Your task to perform on an android device: Open notification settings Image 0: 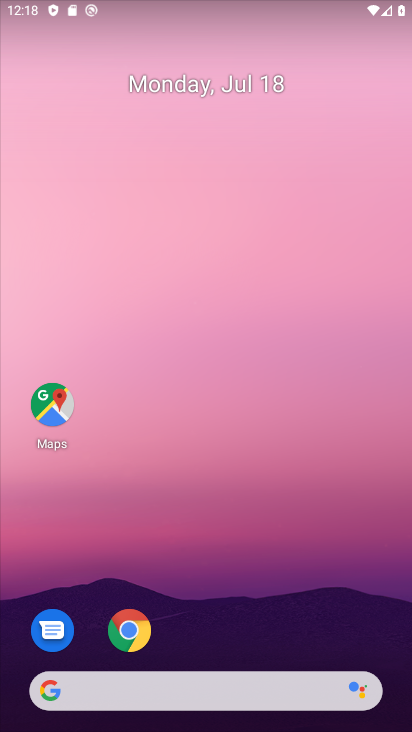
Step 0: drag from (167, 658) to (175, 36)
Your task to perform on an android device: Open notification settings Image 1: 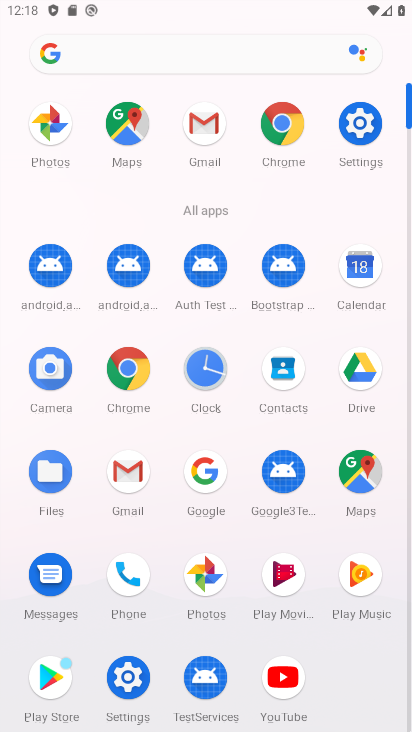
Step 1: click (128, 691)
Your task to perform on an android device: Open notification settings Image 2: 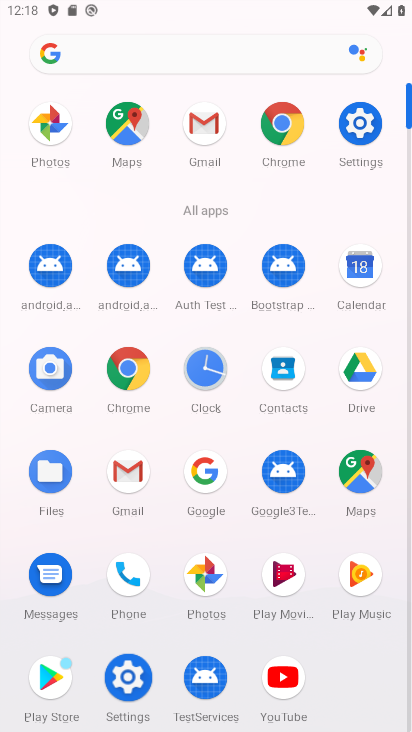
Step 2: click (121, 686)
Your task to perform on an android device: Open notification settings Image 3: 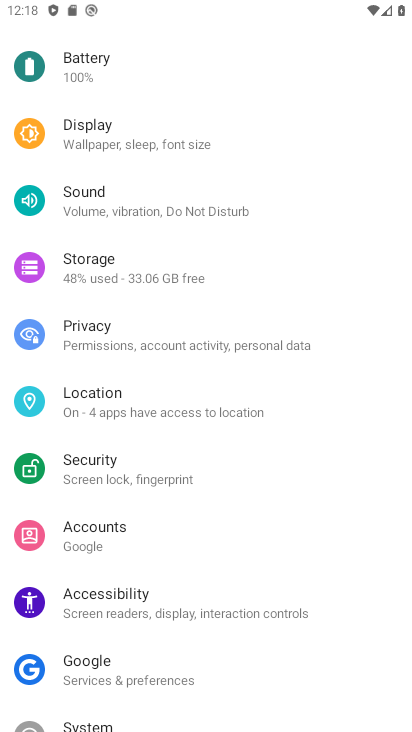
Step 3: click (128, 675)
Your task to perform on an android device: Open notification settings Image 4: 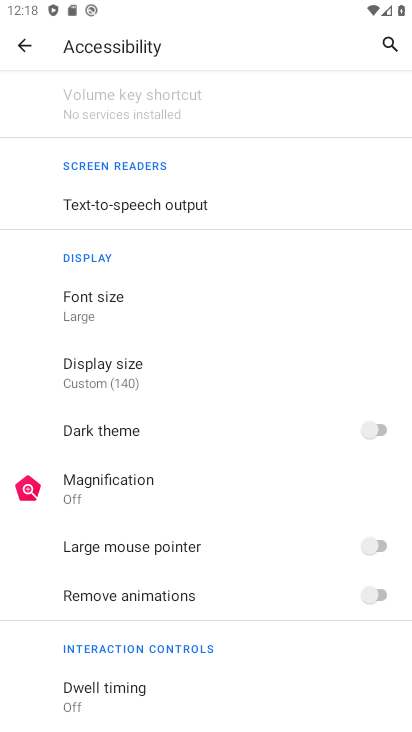
Step 4: click (24, 42)
Your task to perform on an android device: Open notification settings Image 5: 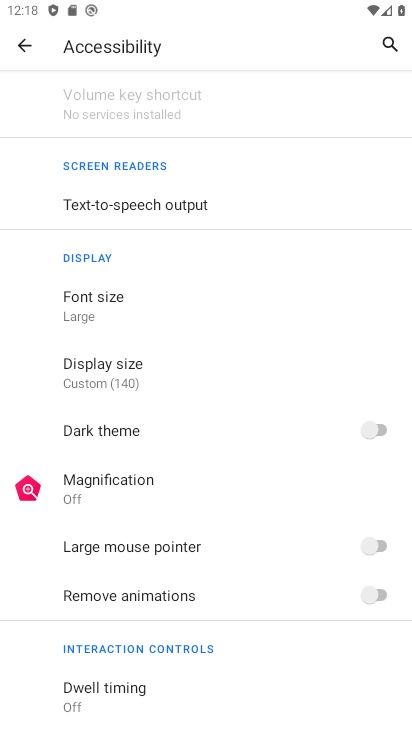
Step 5: click (26, 41)
Your task to perform on an android device: Open notification settings Image 6: 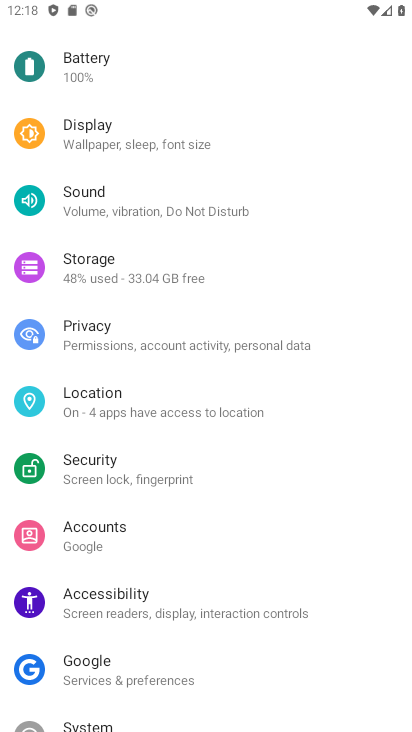
Step 6: drag from (179, 616) to (138, 251)
Your task to perform on an android device: Open notification settings Image 7: 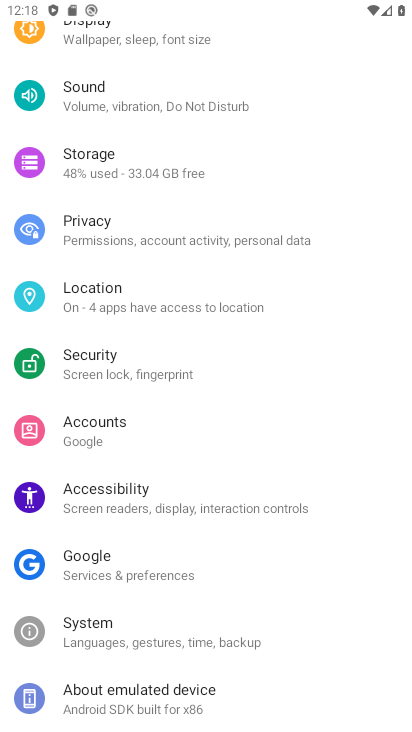
Step 7: drag from (158, 481) to (115, 208)
Your task to perform on an android device: Open notification settings Image 8: 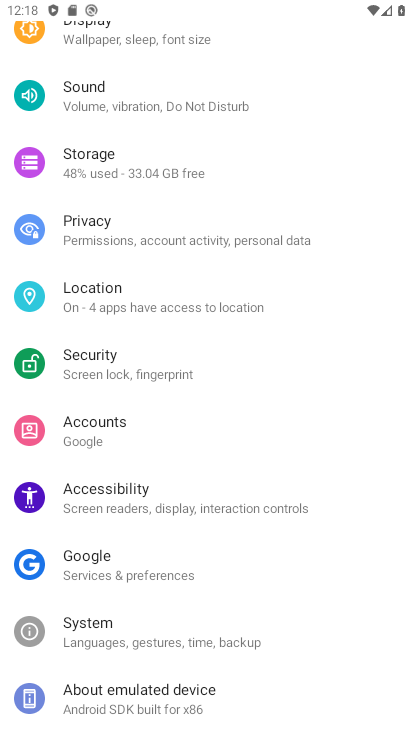
Step 8: drag from (131, 212) to (160, 562)
Your task to perform on an android device: Open notification settings Image 9: 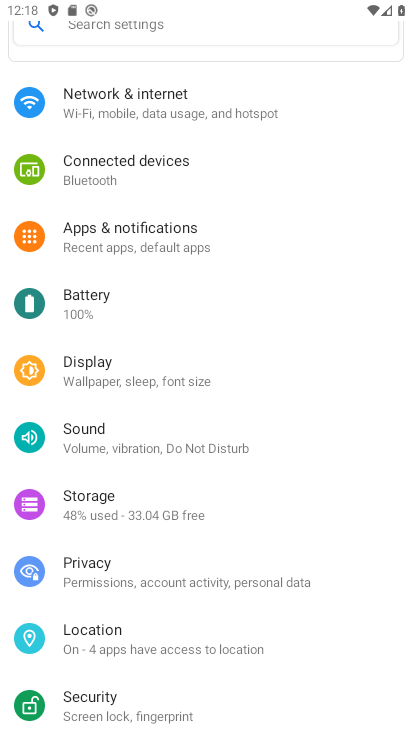
Step 9: click (154, 237)
Your task to perform on an android device: Open notification settings Image 10: 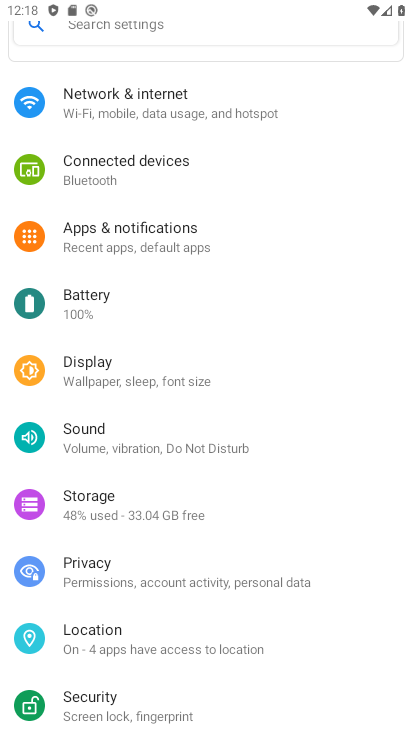
Step 10: click (161, 255)
Your task to perform on an android device: Open notification settings Image 11: 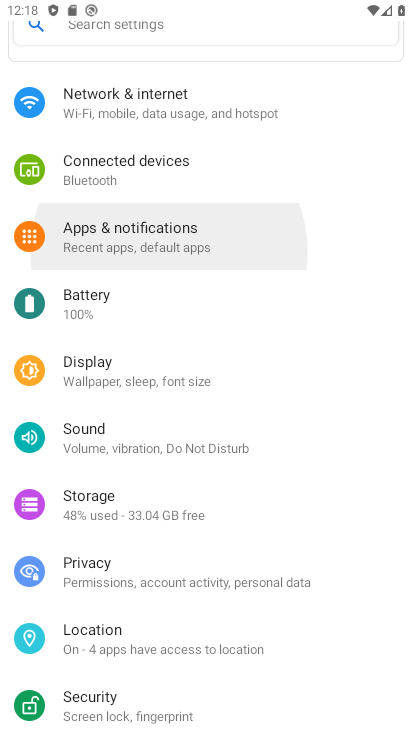
Step 11: click (130, 237)
Your task to perform on an android device: Open notification settings Image 12: 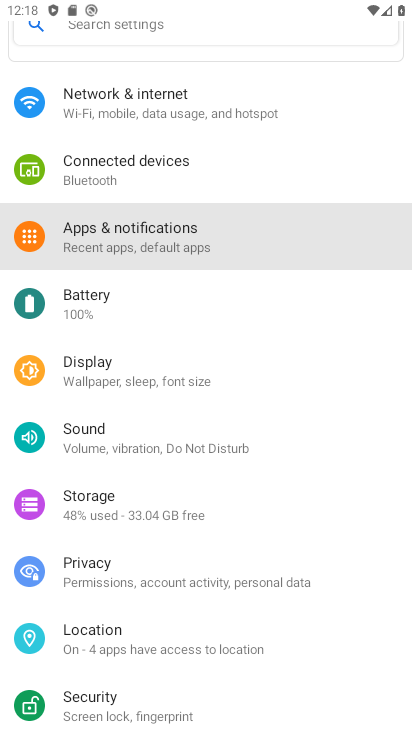
Step 12: click (128, 246)
Your task to perform on an android device: Open notification settings Image 13: 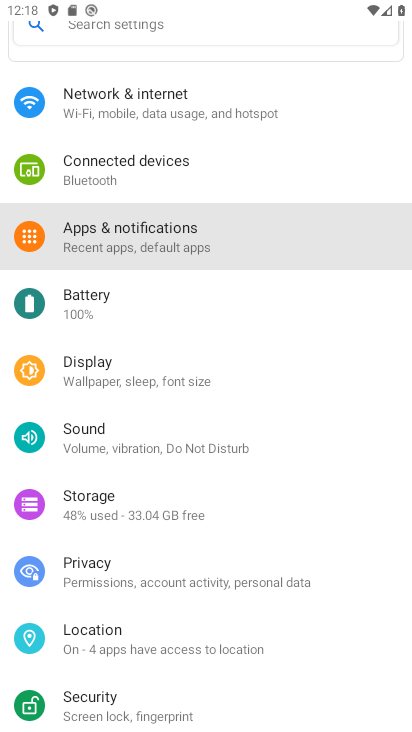
Step 13: click (126, 245)
Your task to perform on an android device: Open notification settings Image 14: 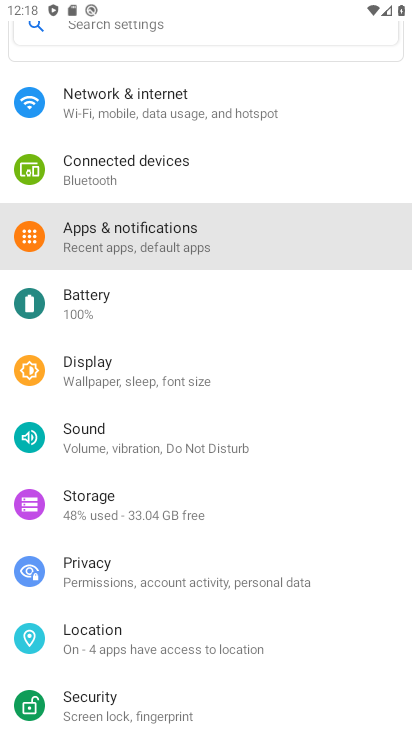
Step 14: click (117, 228)
Your task to perform on an android device: Open notification settings Image 15: 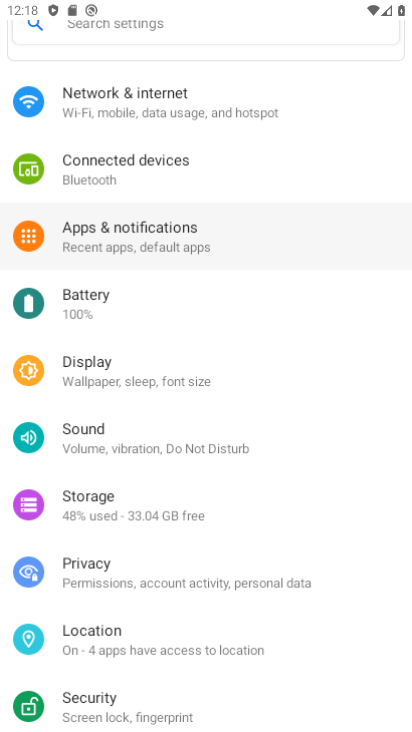
Step 15: click (116, 229)
Your task to perform on an android device: Open notification settings Image 16: 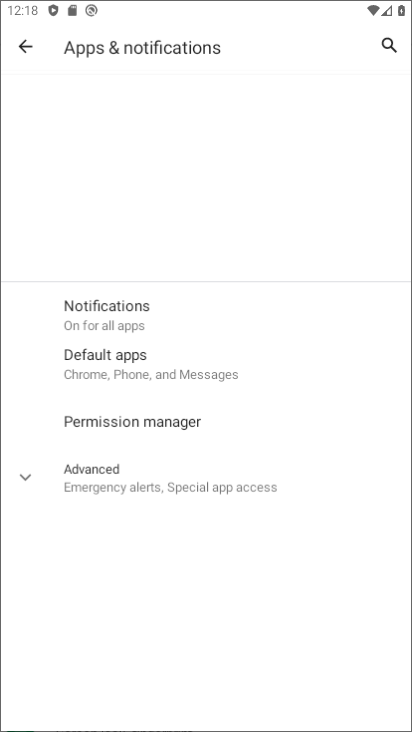
Step 16: click (116, 229)
Your task to perform on an android device: Open notification settings Image 17: 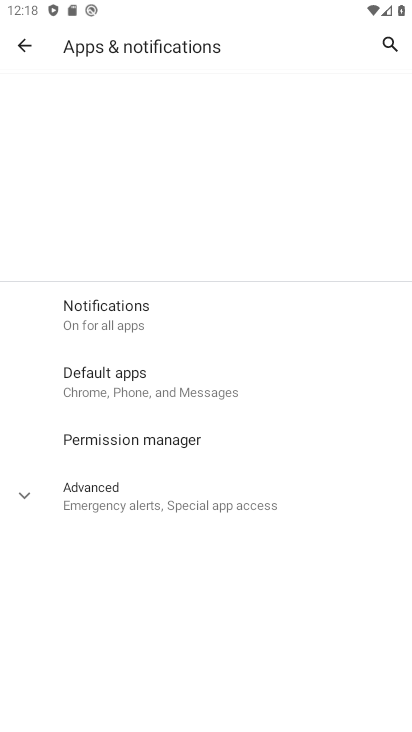
Step 17: click (118, 229)
Your task to perform on an android device: Open notification settings Image 18: 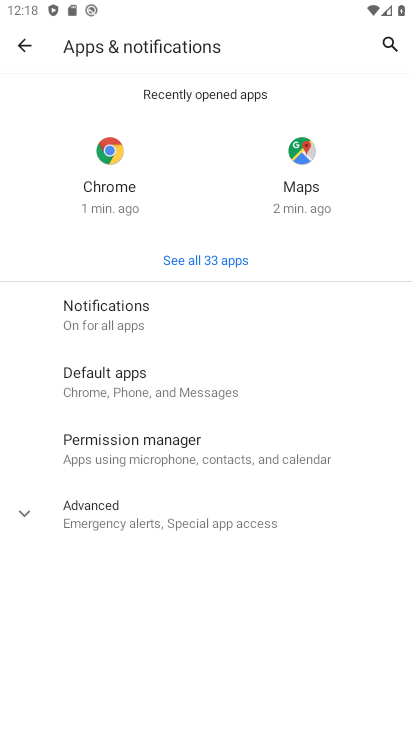
Step 18: task complete